Your task to perform on an android device: turn vacation reply on in the gmail app Image 0: 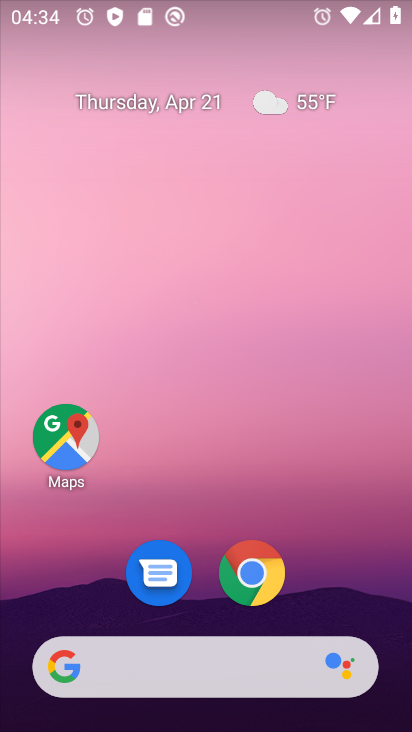
Step 0: drag from (386, 605) to (297, 220)
Your task to perform on an android device: turn vacation reply on in the gmail app Image 1: 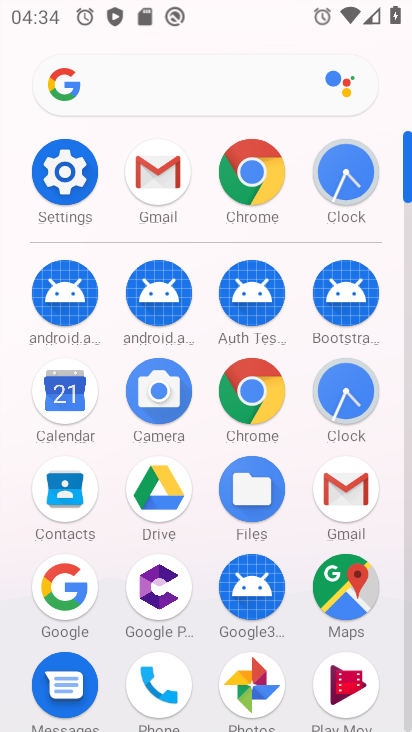
Step 1: click (408, 702)
Your task to perform on an android device: turn vacation reply on in the gmail app Image 2: 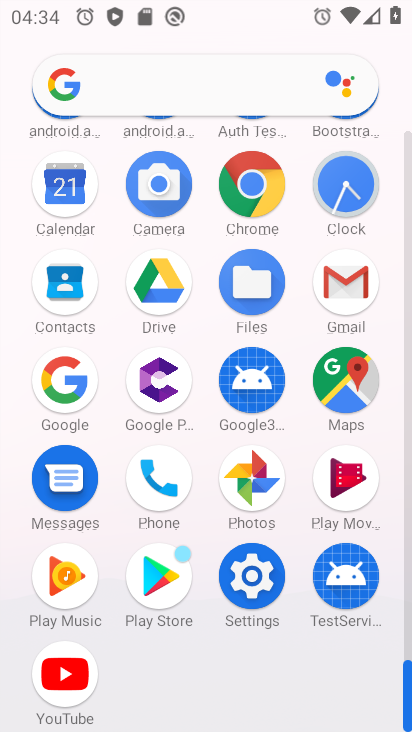
Step 2: click (345, 281)
Your task to perform on an android device: turn vacation reply on in the gmail app Image 3: 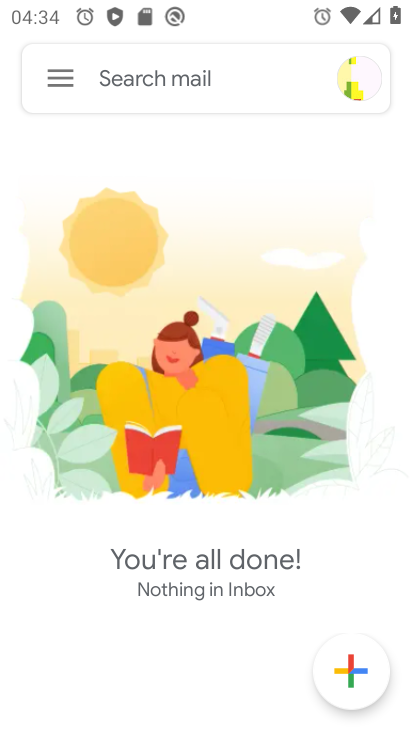
Step 3: click (56, 79)
Your task to perform on an android device: turn vacation reply on in the gmail app Image 4: 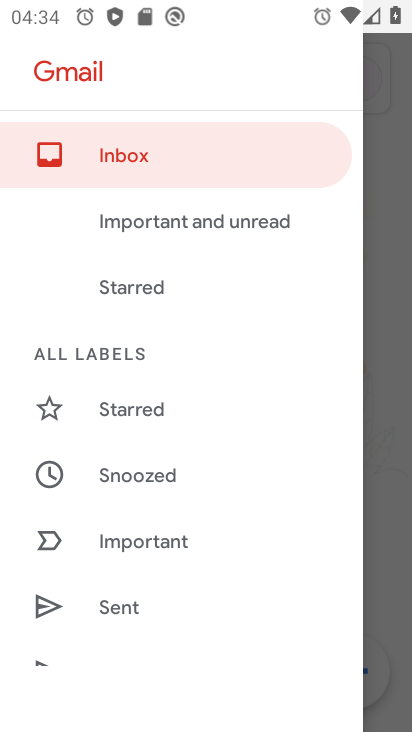
Step 4: drag from (269, 599) to (285, 377)
Your task to perform on an android device: turn vacation reply on in the gmail app Image 5: 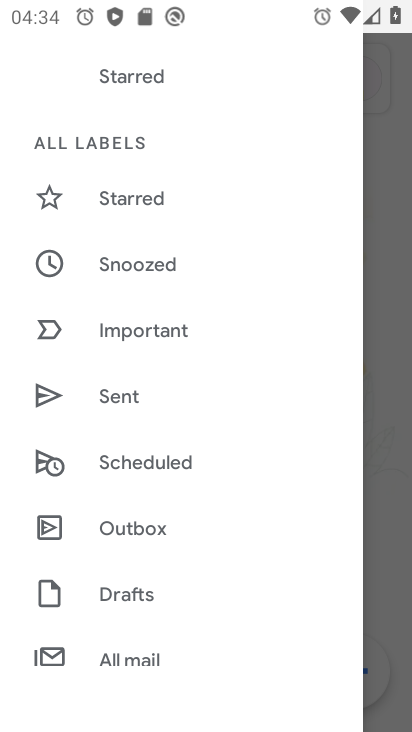
Step 5: drag from (255, 618) to (262, 354)
Your task to perform on an android device: turn vacation reply on in the gmail app Image 6: 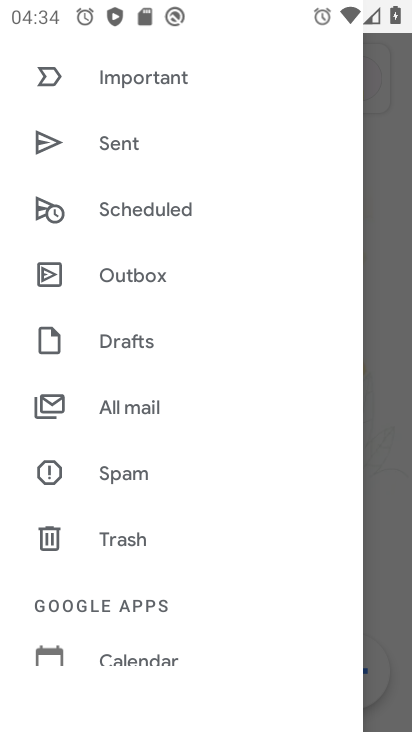
Step 6: drag from (256, 604) to (253, 335)
Your task to perform on an android device: turn vacation reply on in the gmail app Image 7: 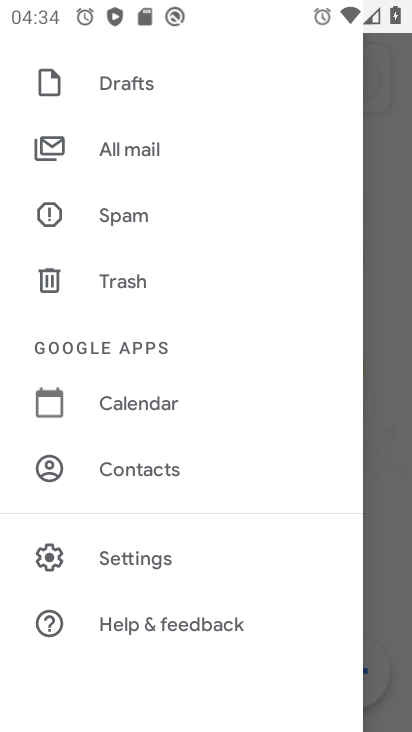
Step 7: click (117, 564)
Your task to perform on an android device: turn vacation reply on in the gmail app Image 8: 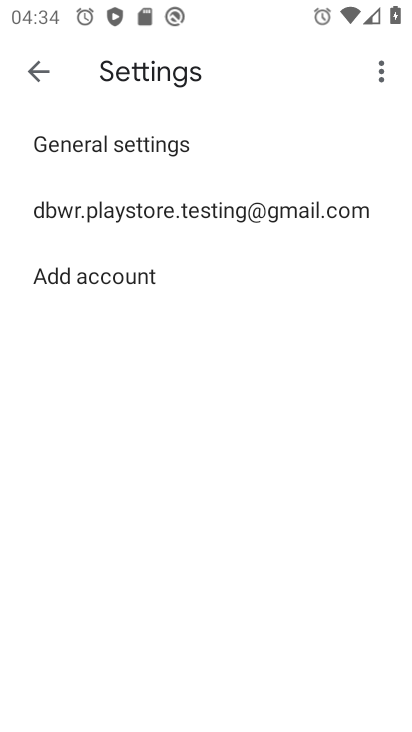
Step 8: click (137, 206)
Your task to perform on an android device: turn vacation reply on in the gmail app Image 9: 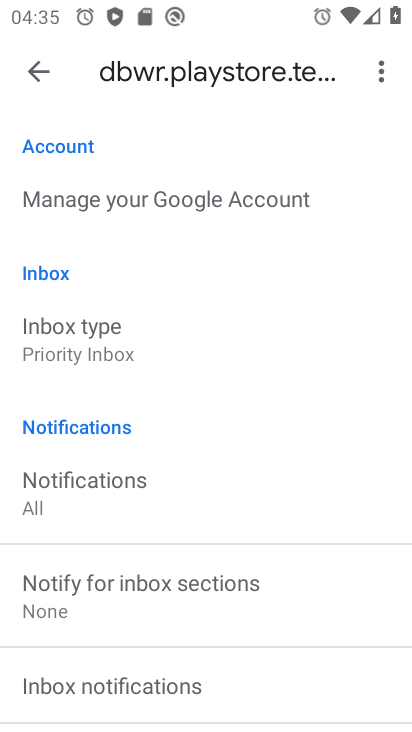
Step 9: drag from (268, 535) to (320, 283)
Your task to perform on an android device: turn vacation reply on in the gmail app Image 10: 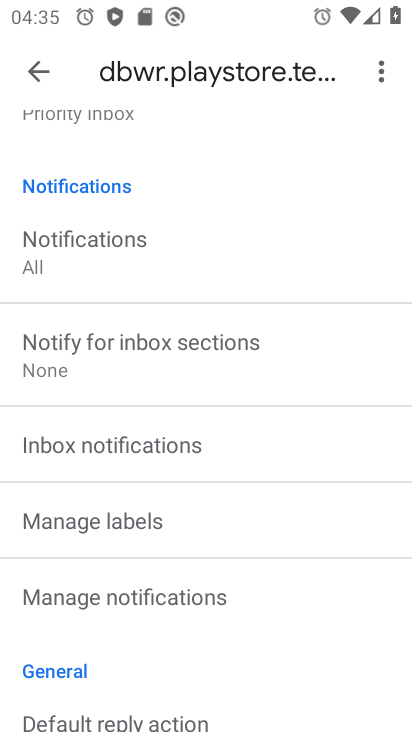
Step 10: drag from (299, 528) to (342, 291)
Your task to perform on an android device: turn vacation reply on in the gmail app Image 11: 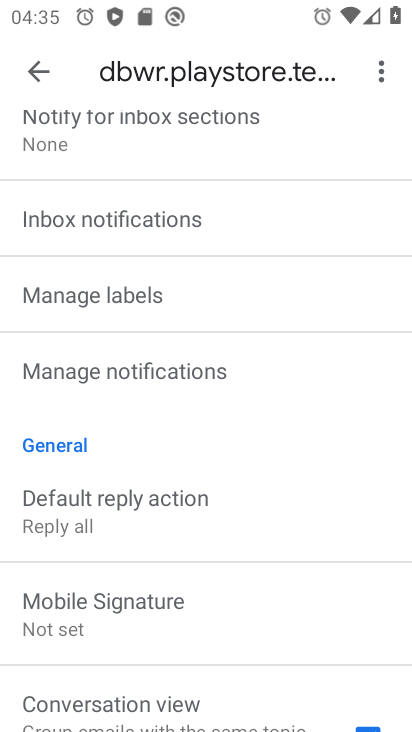
Step 11: drag from (279, 591) to (307, 305)
Your task to perform on an android device: turn vacation reply on in the gmail app Image 12: 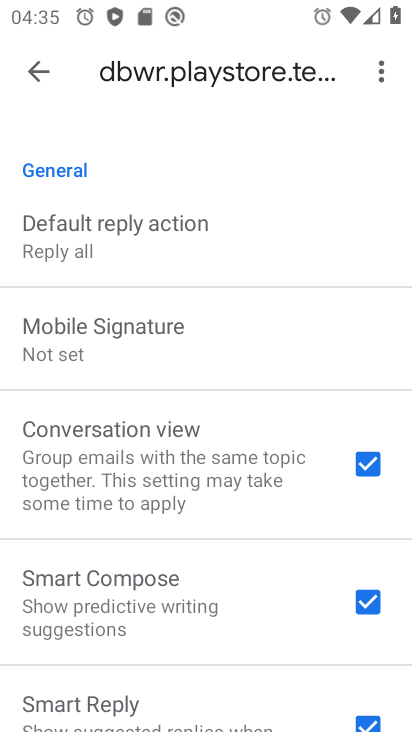
Step 12: drag from (272, 599) to (323, 266)
Your task to perform on an android device: turn vacation reply on in the gmail app Image 13: 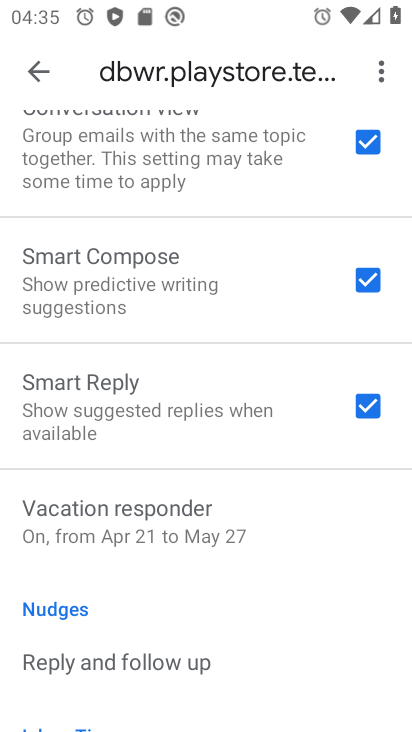
Step 13: click (106, 515)
Your task to perform on an android device: turn vacation reply on in the gmail app Image 14: 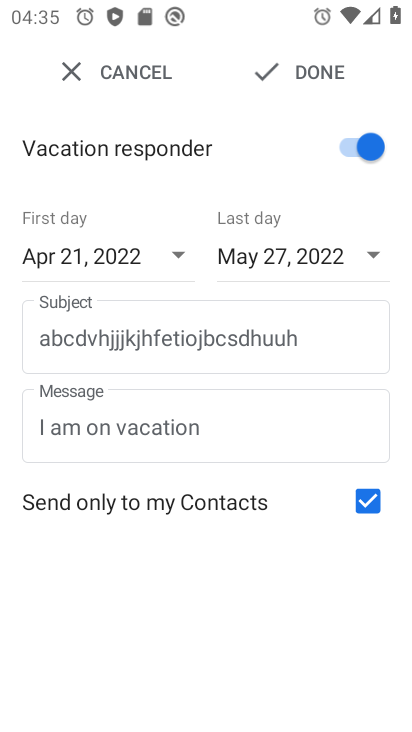
Step 14: task complete